Your task to perform on an android device: uninstall "Clock" Image 0: 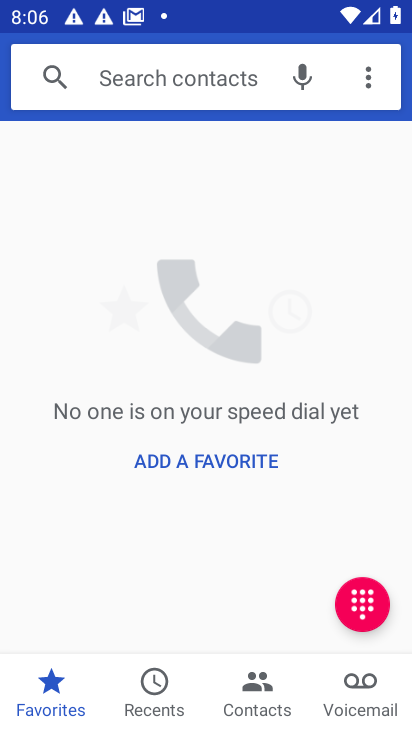
Step 0: click (248, 441)
Your task to perform on an android device: uninstall "Clock" Image 1: 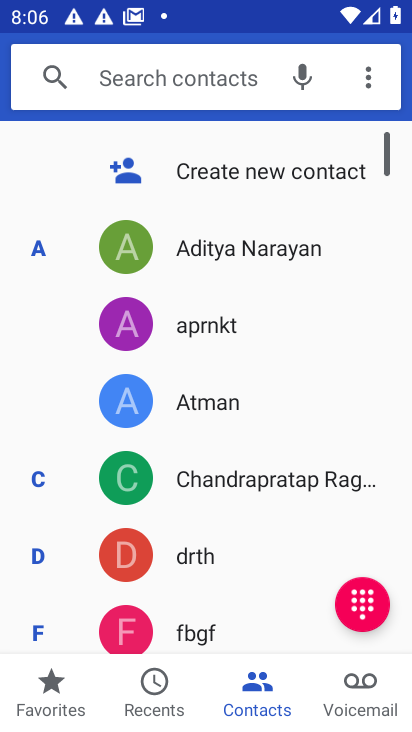
Step 1: press home button
Your task to perform on an android device: uninstall "Clock" Image 2: 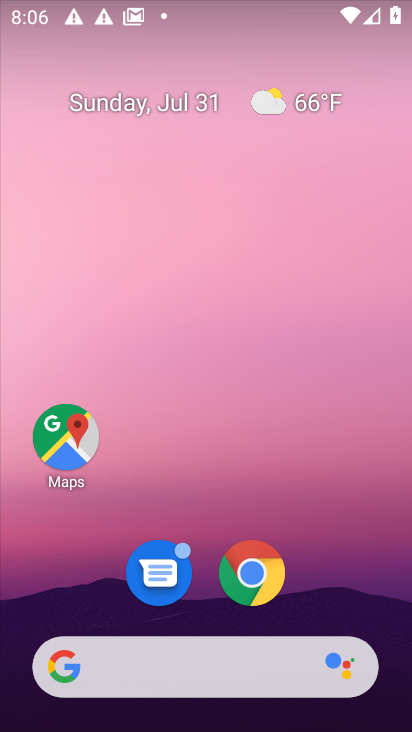
Step 2: drag from (203, 549) to (172, 8)
Your task to perform on an android device: uninstall "Clock" Image 3: 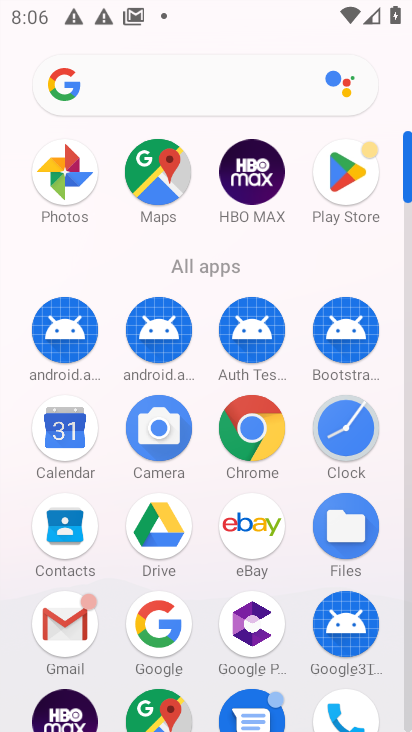
Step 3: click (349, 186)
Your task to perform on an android device: uninstall "Clock" Image 4: 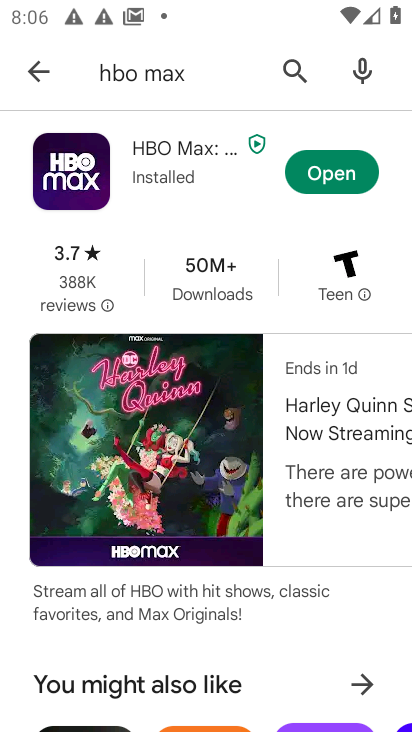
Step 4: click (131, 82)
Your task to perform on an android device: uninstall "Clock" Image 5: 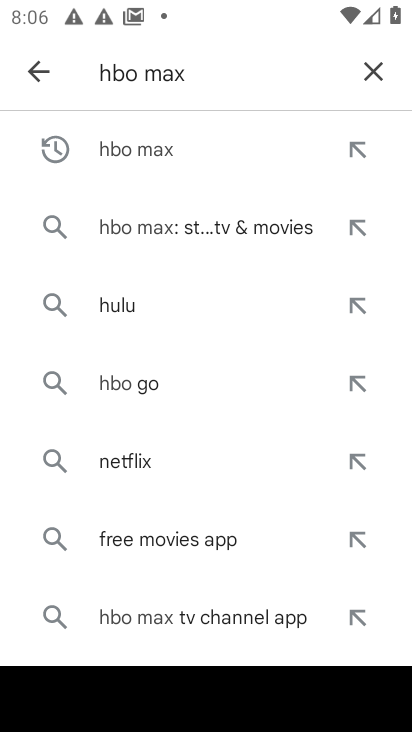
Step 5: click (371, 77)
Your task to perform on an android device: uninstall "Clock" Image 6: 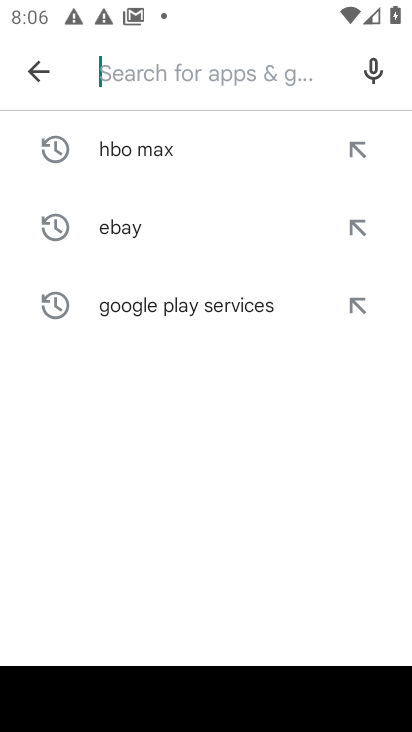
Step 6: type "clock"
Your task to perform on an android device: uninstall "Clock" Image 7: 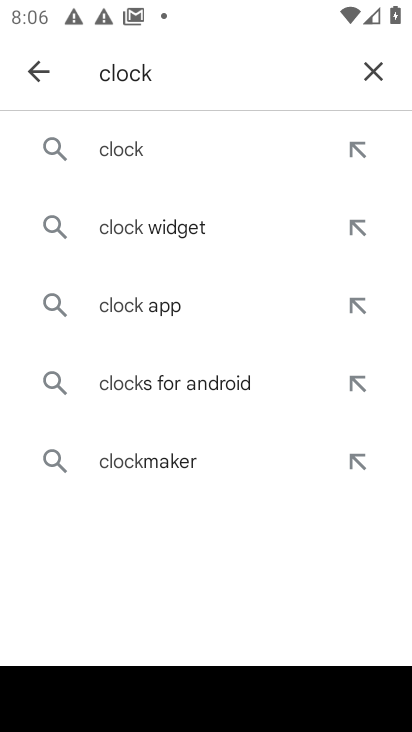
Step 7: click (158, 153)
Your task to perform on an android device: uninstall "Clock" Image 8: 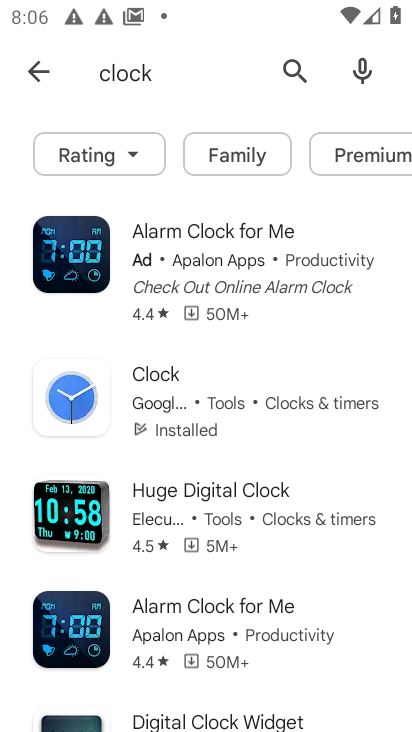
Step 8: click (63, 383)
Your task to perform on an android device: uninstall "Clock" Image 9: 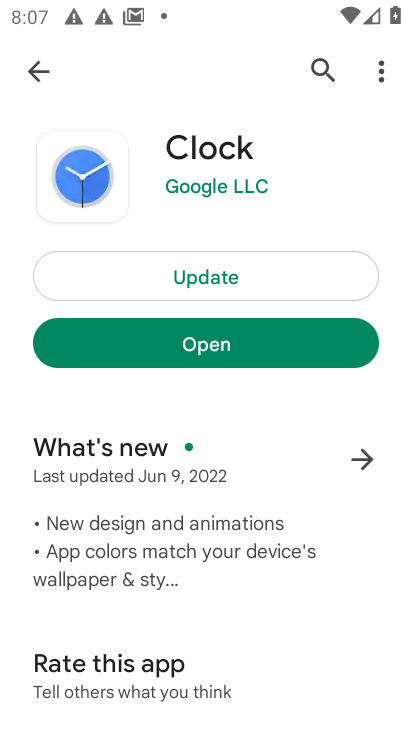
Step 9: task complete